Your task to perform on an android device: open app "Google Play Games" Image 0: 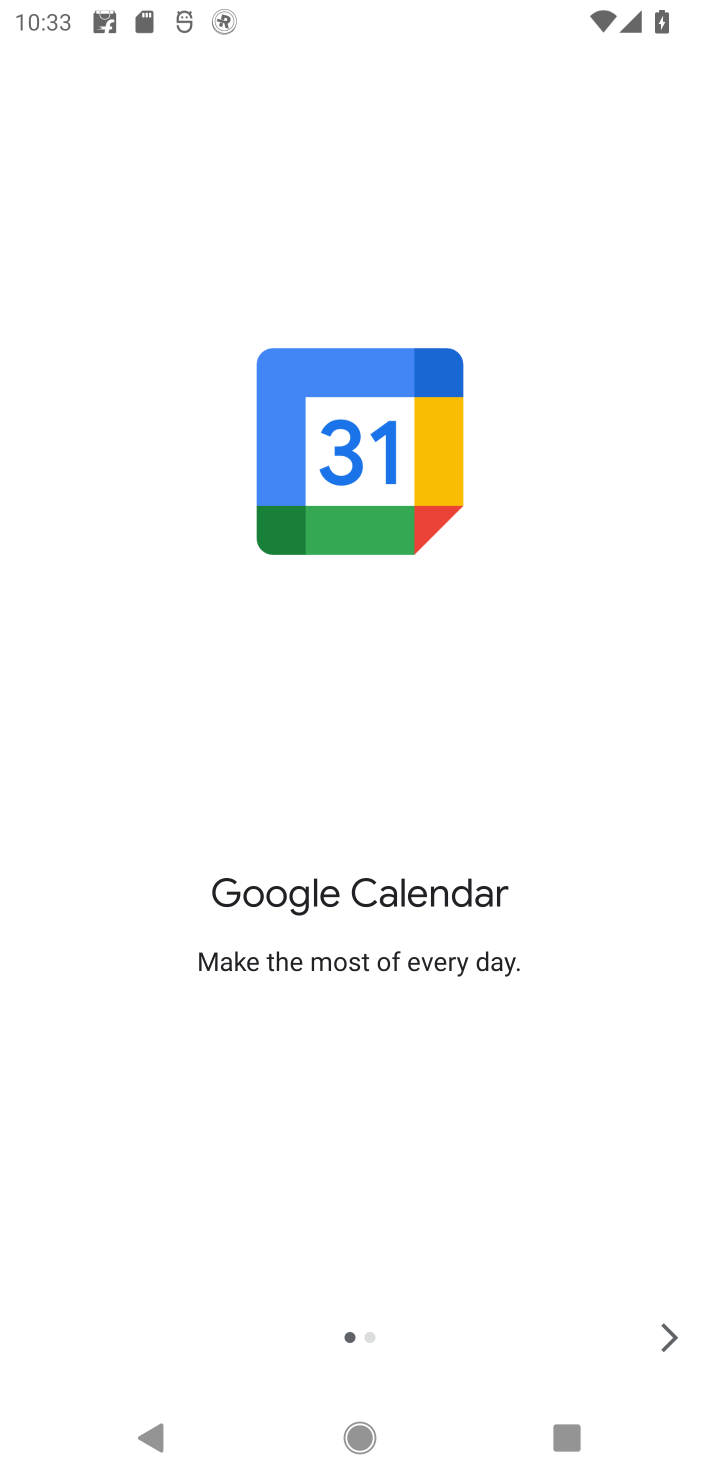
Step 0: press back button
Your task to perform on an android device: open app "Google Play Games" Image 1: 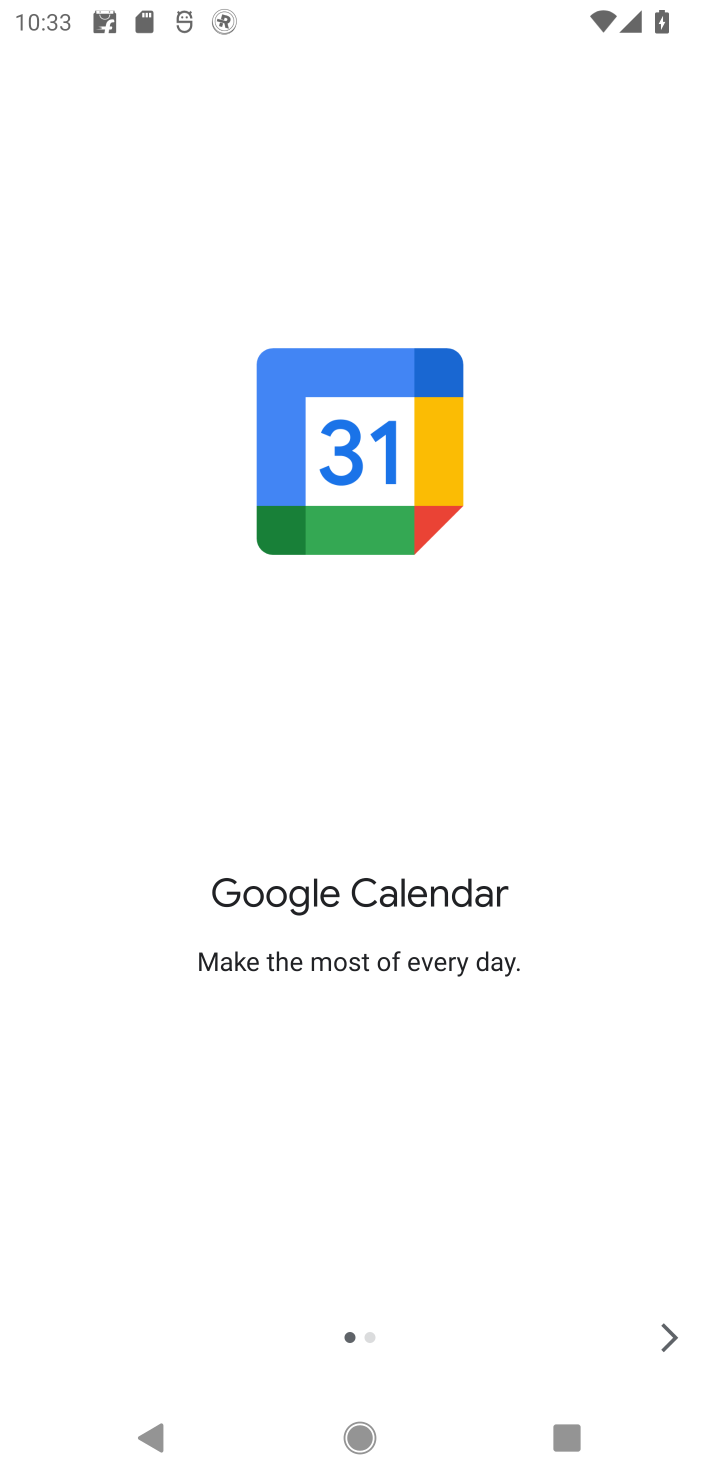
Step 1: press home button
Your task to perform on an android device: open app "Google Play Games" Image 2: 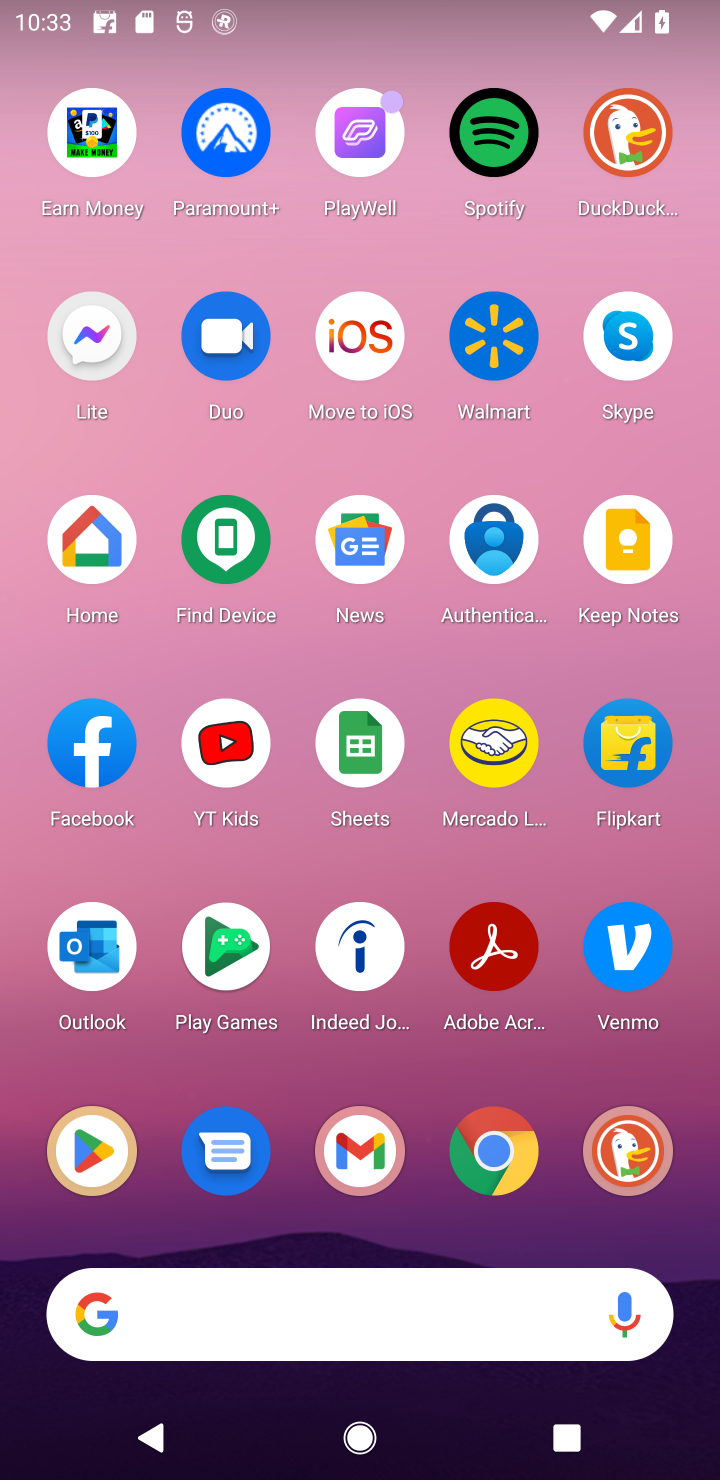
Step 2: click (120, 1171)
Your task to perform on an android device: open app "Google Play Games" Image 3: 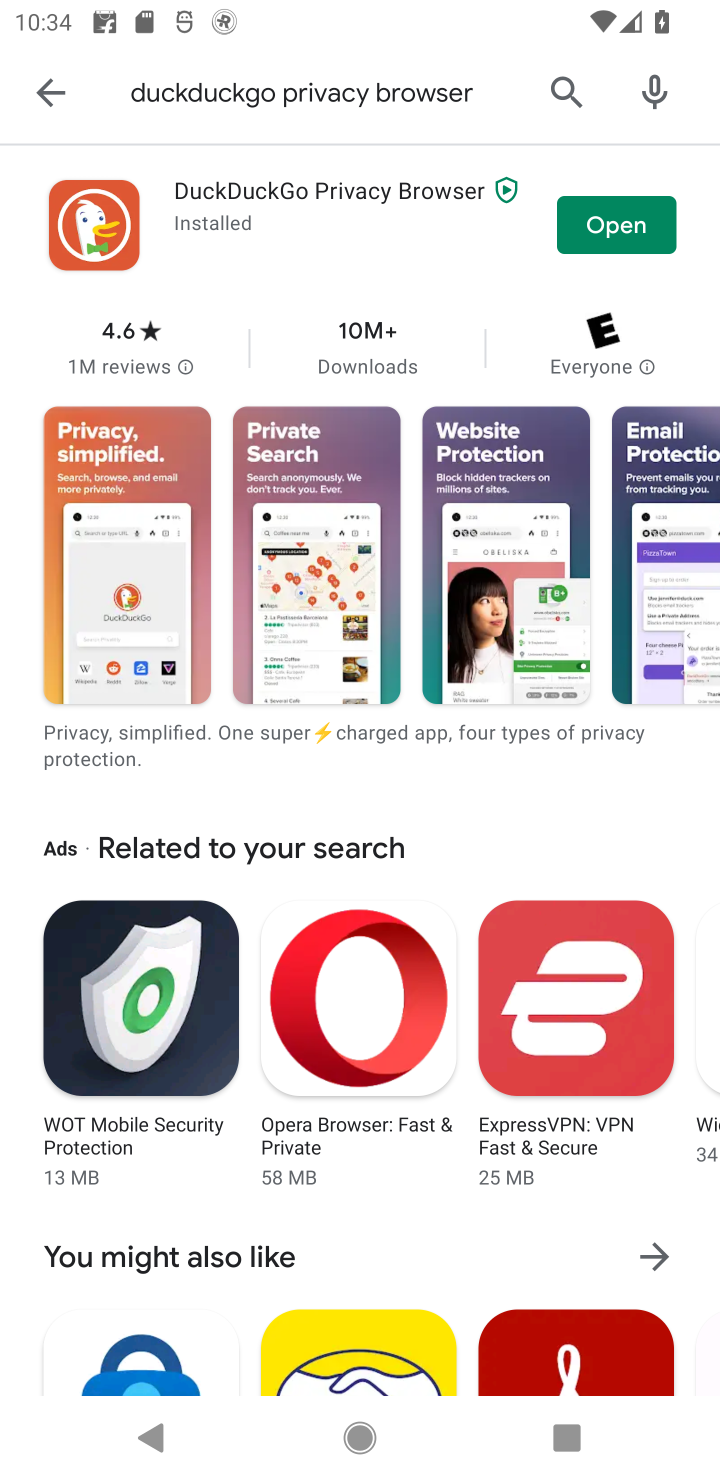
Step 3: click (565, 99)
Your task to perform on an android device: open app "Google Play Games" Image 4: 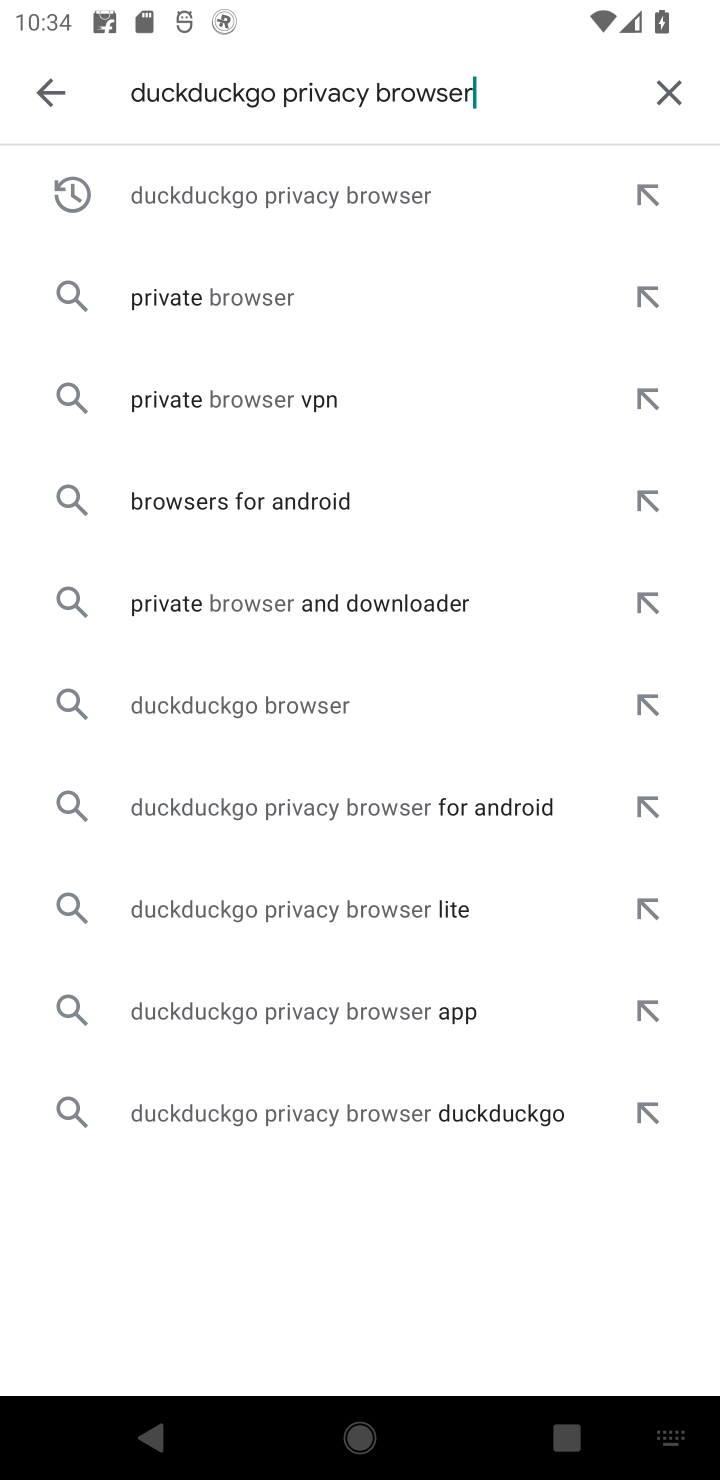
Step 4: click (671, 73)
Your task to perform on an android device: open app "Google Play Games" Image 5: 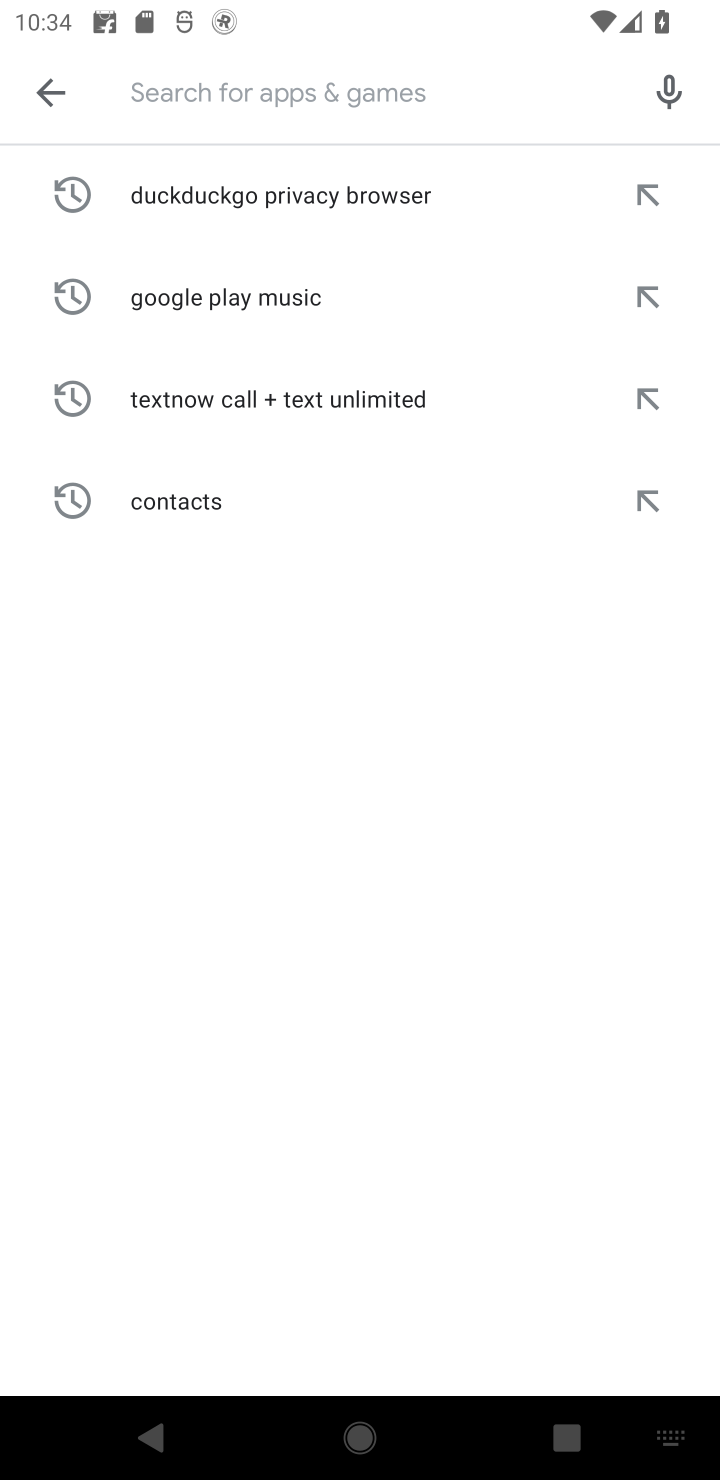
Step 5: type "Google Play Games"
Your task to perform on an android device: open app "Google Play Games" Image 6: 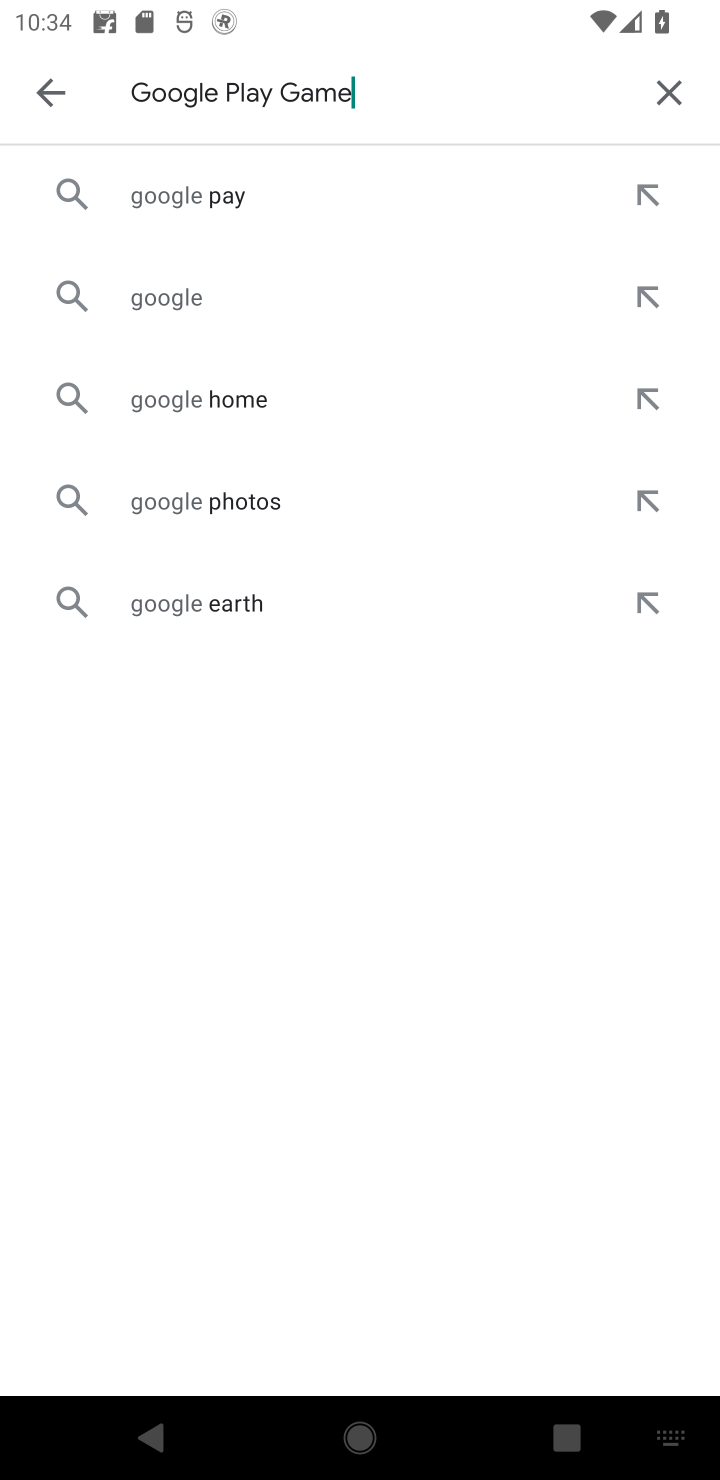
Step 6: type ""
Your task to perform on an android device: open app "Google Play Games" Image 7: 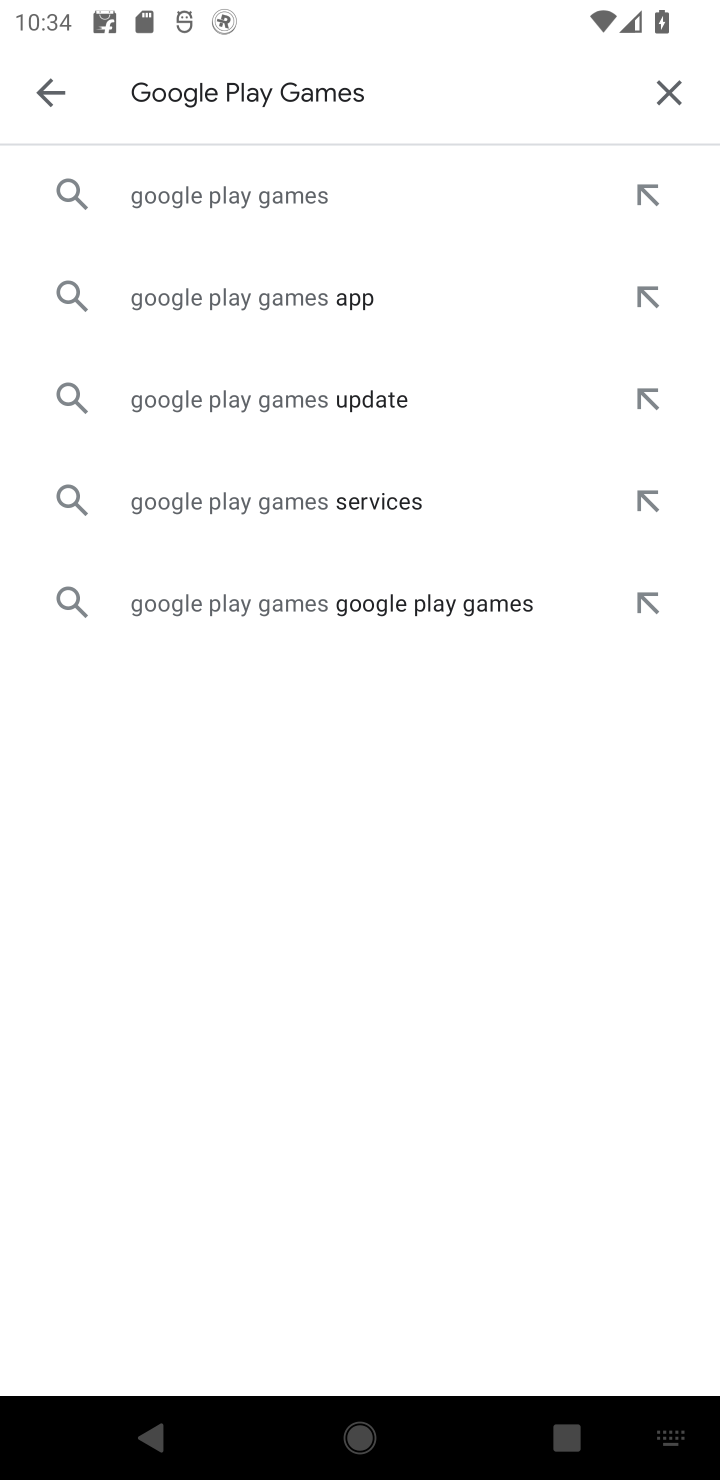
Step 7: click (323, 188)
Your task to perform on an android device: open app "Google Play Games" Image 8: 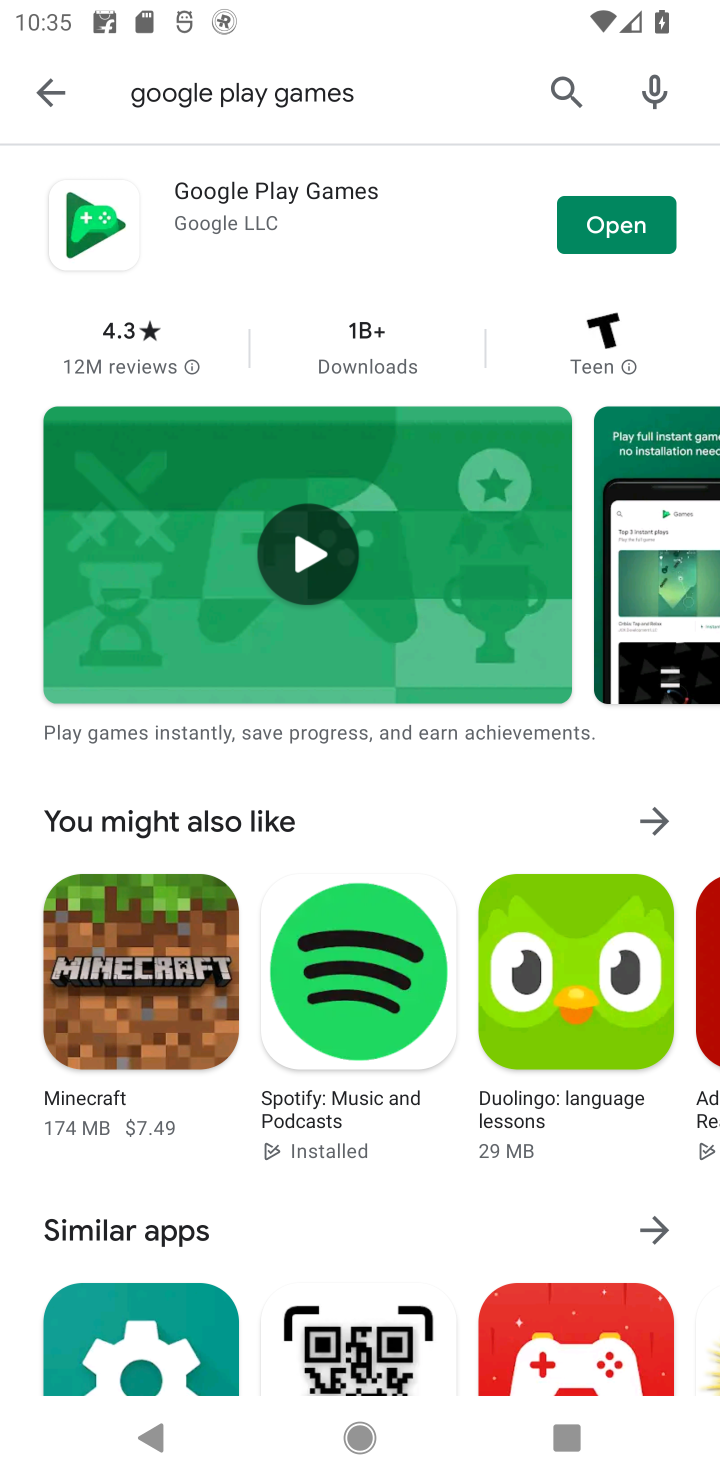
Step 8: click (648, 227)
Your task to perform on an android device: open app "Google Play Games" Image 9: 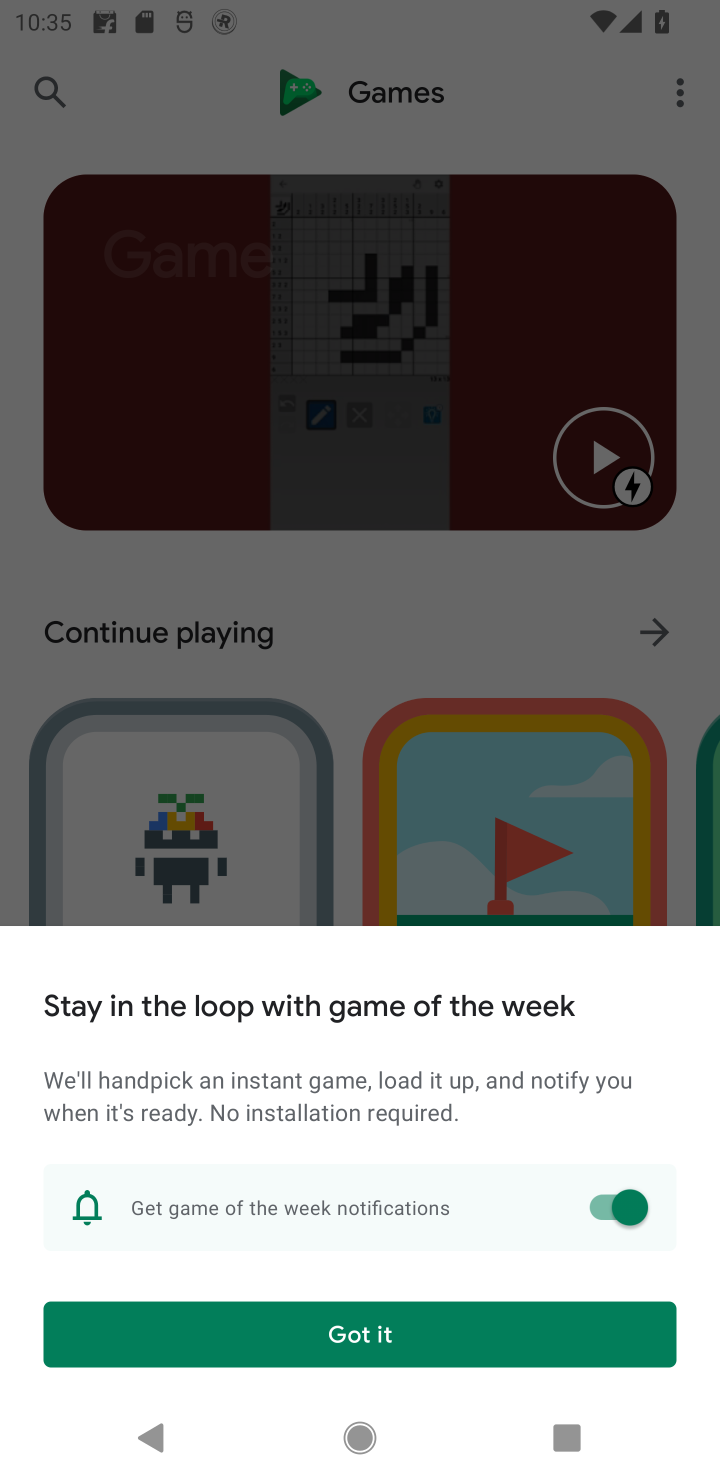
Step 9: task complete